Your task to perform on an android device: When is my next meeting? Image 0: 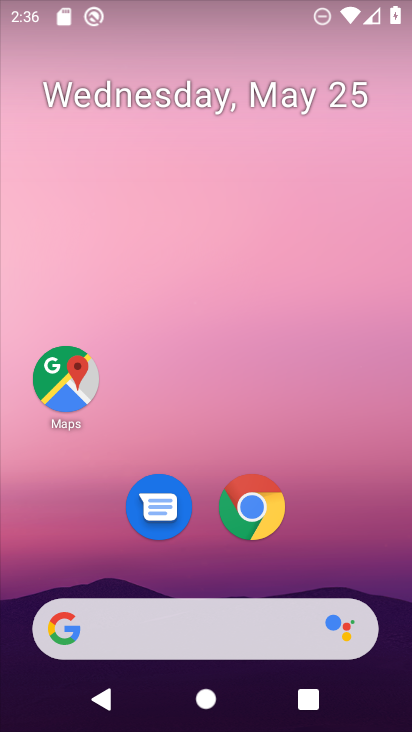
Step 0: drag from (311, 579) to (350, 168)
Your task to perform on an android device: When is my next meeting? Image 1: 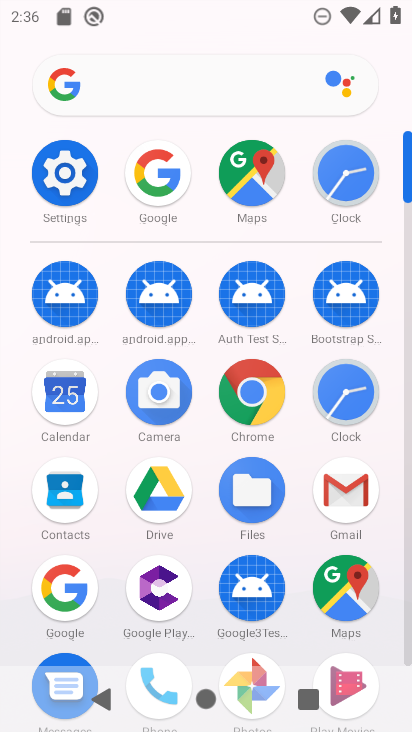
Step 1: click (65, 422)
Your task to perform on an android device: When is my next meeting? Image 2: 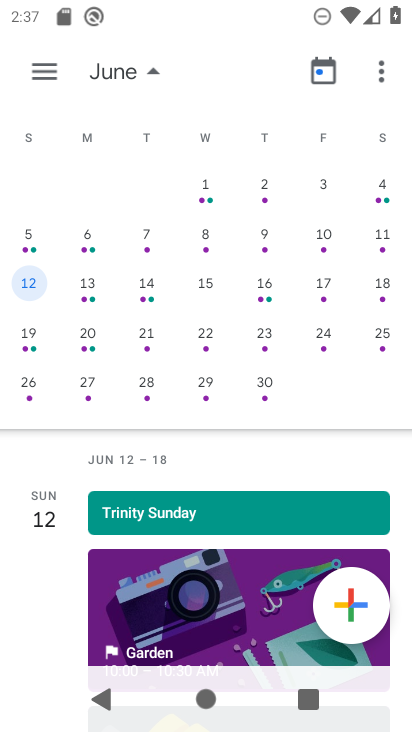
Step 2: click (50, 72)
Your task to perform on an android device: When is my next meeting? Image 3: 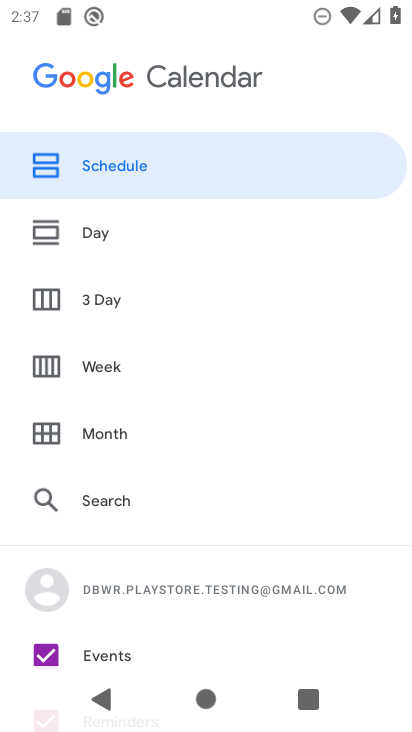
Step 3: drag from (209, 584) to (237, 284)
Your task to perform on an android device: When is my next meeting? Image 4: 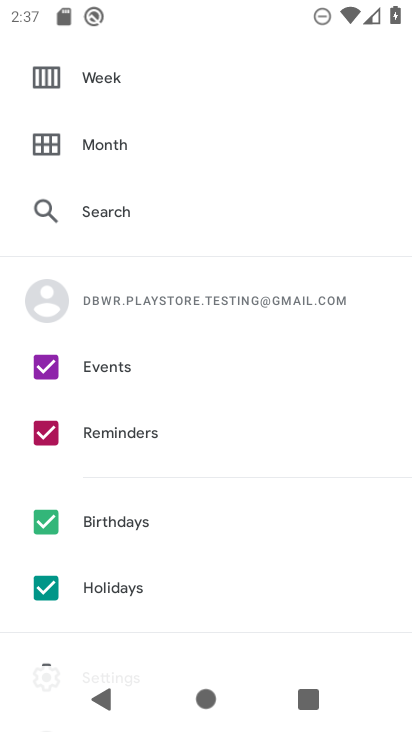
Step 4: click (38, 526)
Your task to perform on an android device: When is my next meeting? Image 5: 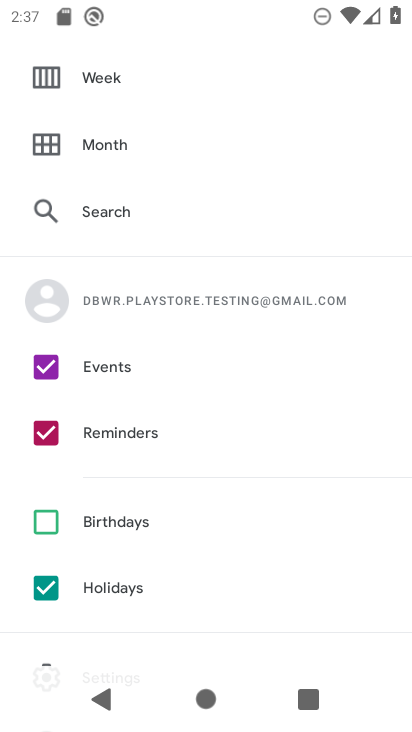
Step 5: click (48, 602)
Your task to perform on an android device: When is my next meeting? Image 6: 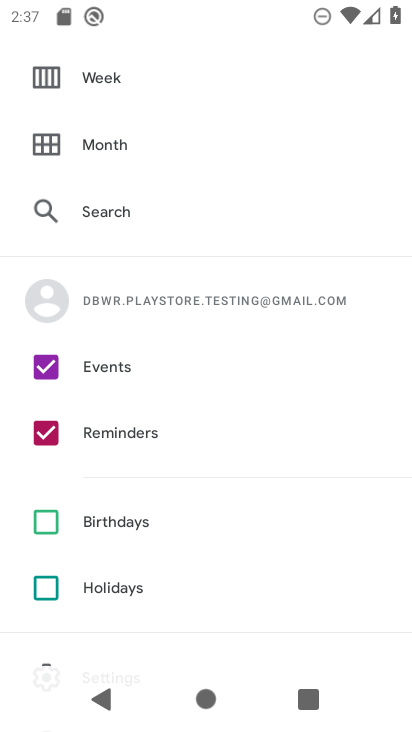
Step 6: task complete